Your task to perform on an android device: Open eBay Image 0: 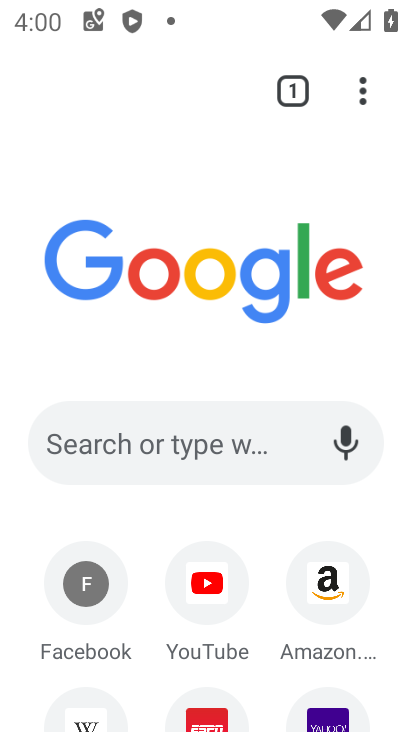
Step 0: drag from (262, 529) to (262, 339)
Your task to perform on an android device: Open eBay Image 1: 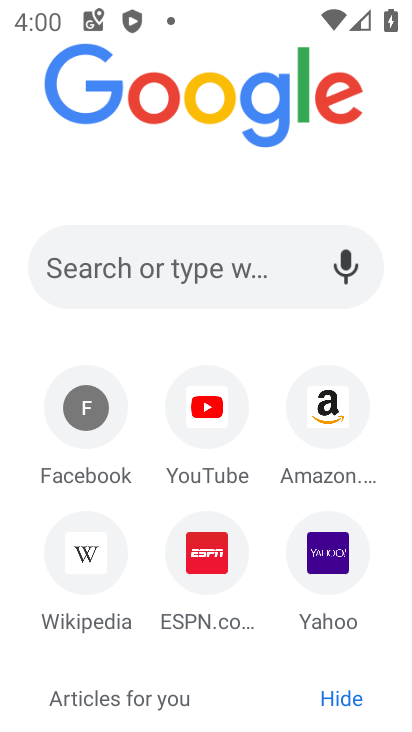
Step 1: click (205, 251)
Your task to perform on an android device: Open eBay Image 2: 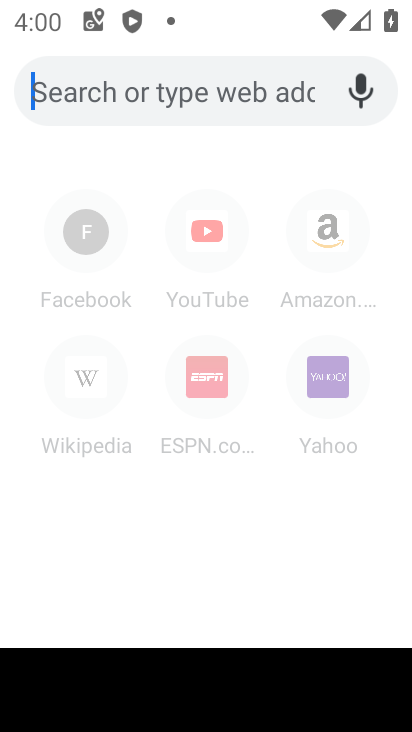
Step 2: type "eBay"
Your task to perform on an android device: Open eBay Image 3: 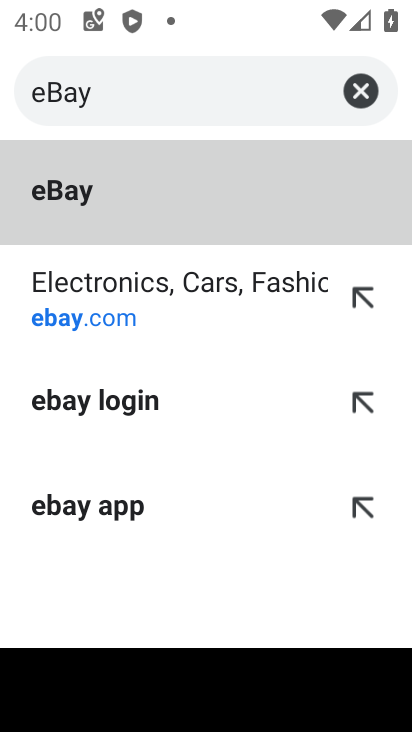
Step 3: click (103, 186)
Your task to perform on an android device: Open eBay Image 4: 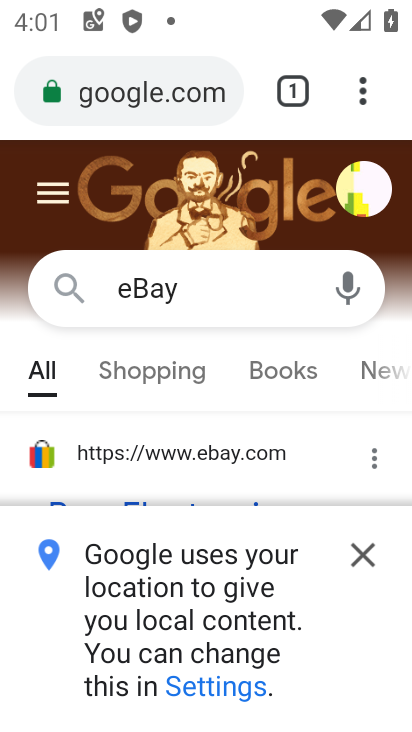
Step 4: drag from (240, 488) to (322, 348)
Your task to perform on an android device: Open eBay Image 5: 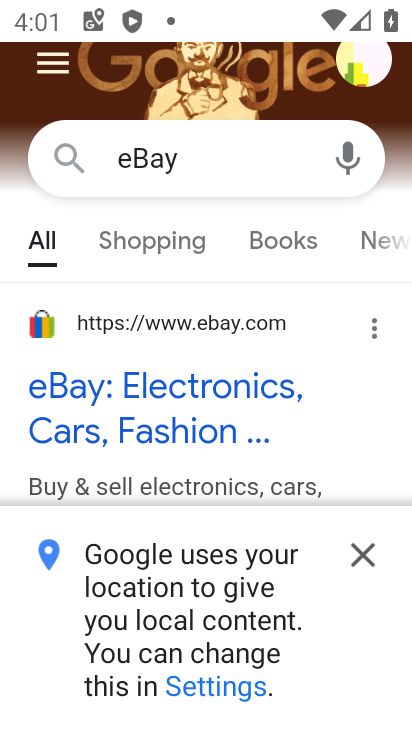
Step 5: click (242, 394)
Your task to perform on an android device: Open eBay Image 6: 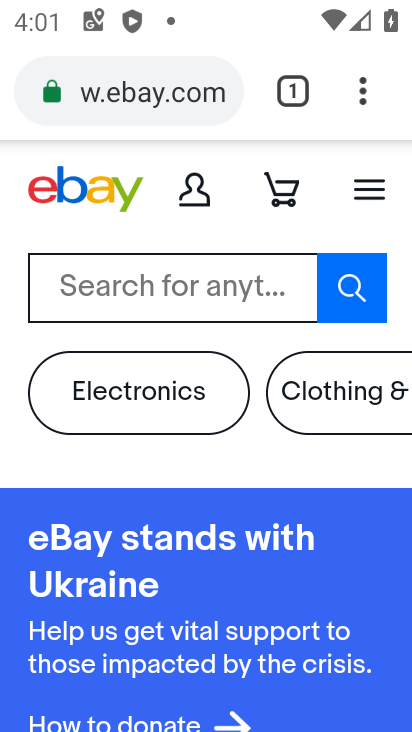
Step 6: task complete